Your task to perform on an android device: turn on data saver in the chrome app Image 0: 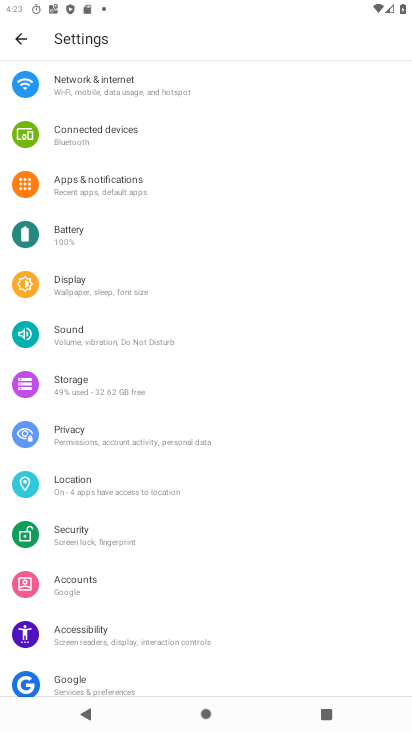
Step 0: press back button
Your task to perform on an android device: turn on data saver in the chrome app Image 1: 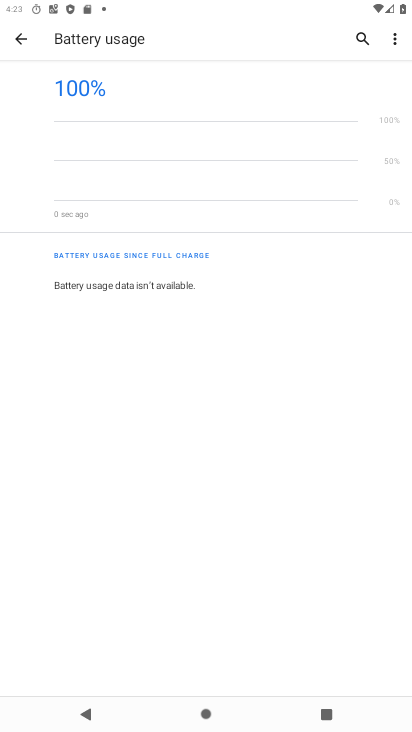
Step 1: press back button
Your task to perform on an android device: turn on data saver in the chrome app Image 2: 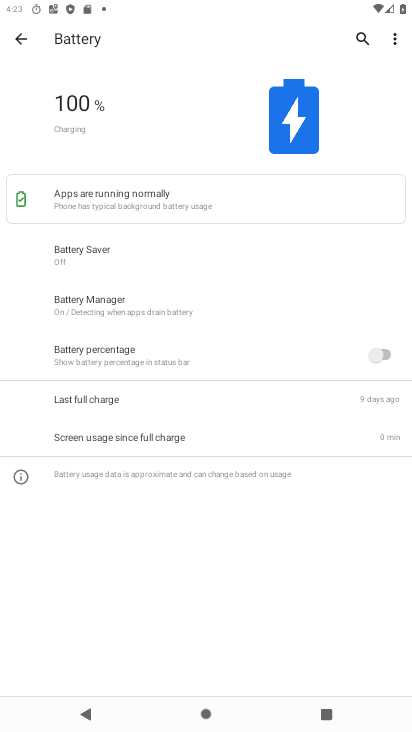
Step 2: press back button
Your task to perform on an android device: turn on data saver in the chrome app Image 3: 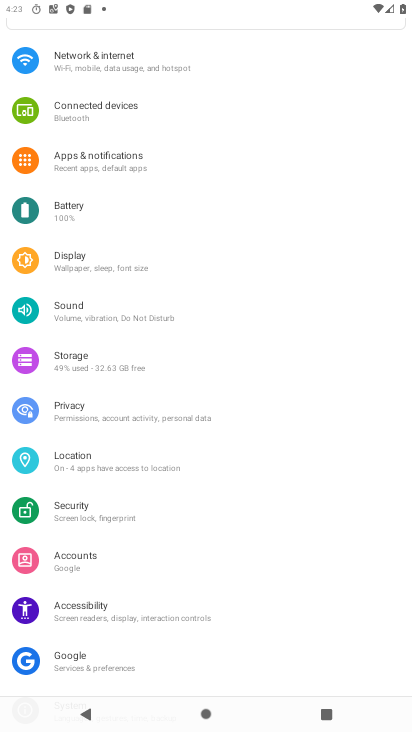
Step 3: press back button
Your task to perform on an android device: turn on data saver in the chrome app Image 4: 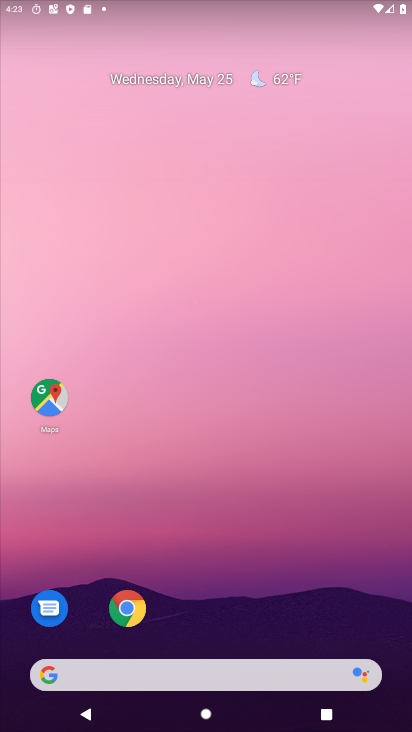
Step 4: click (126, 608)
Your task to perform on an android device: turn on data saver in the chrome app Image 5: 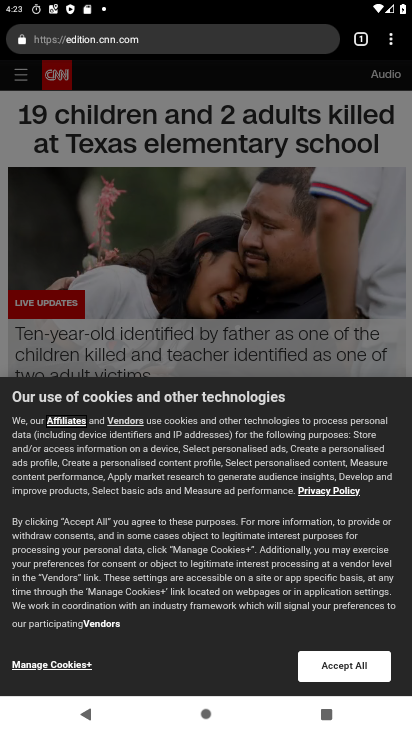
Step 5: click (392, 39)
Your task to perform on an android device: turn on data saver in the chrome app Image 6: 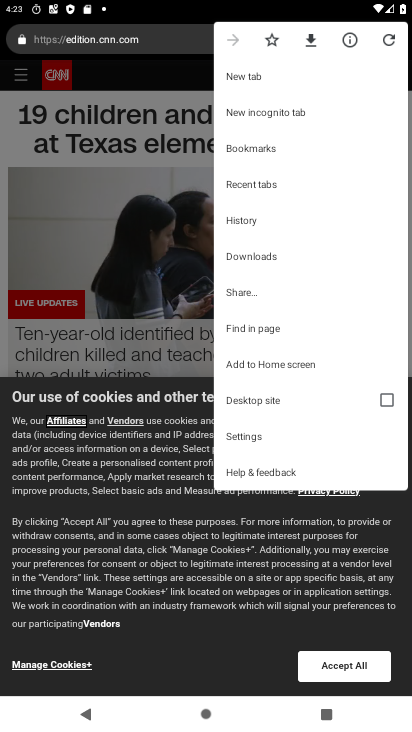
Step 6: click (249, 439)
Your task to perform on an android device: turn on data saver in the chrome app Image 7: 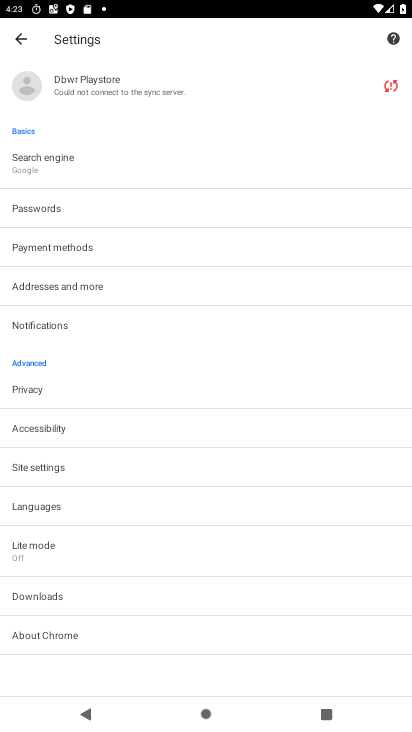
Step 7: click (56, 545)
Your task to perform on an android device: turn on data saver in the chrome app Image 8: 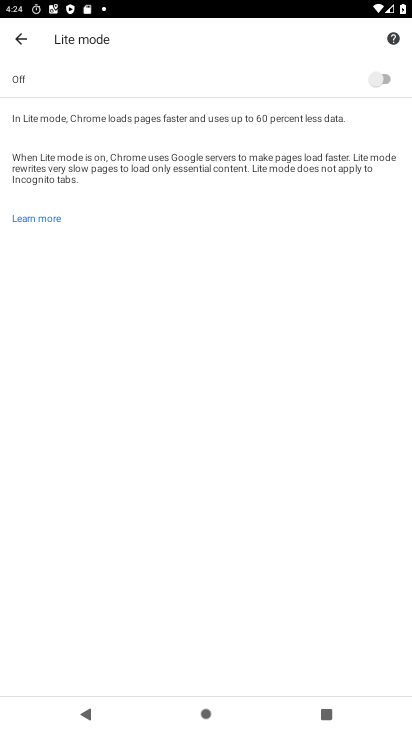
Step 8: click (378, 87)
Your task to perform on an android device: turn on data saver in the chrome app Image 9: 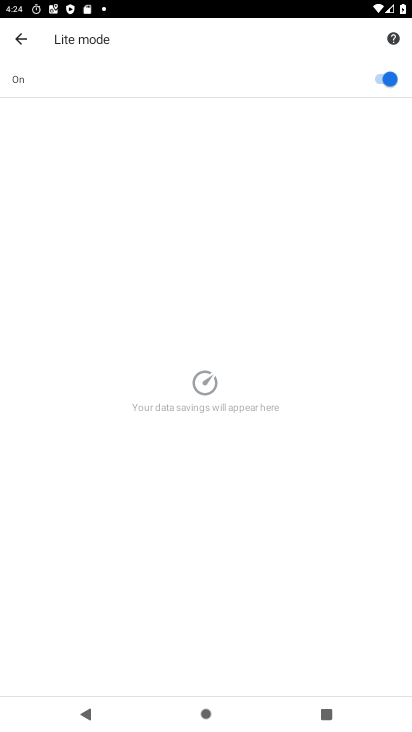
Step 9: task complete